Your task to perform on an android device: Open the phone app and click the voicemail tab. Image 0: 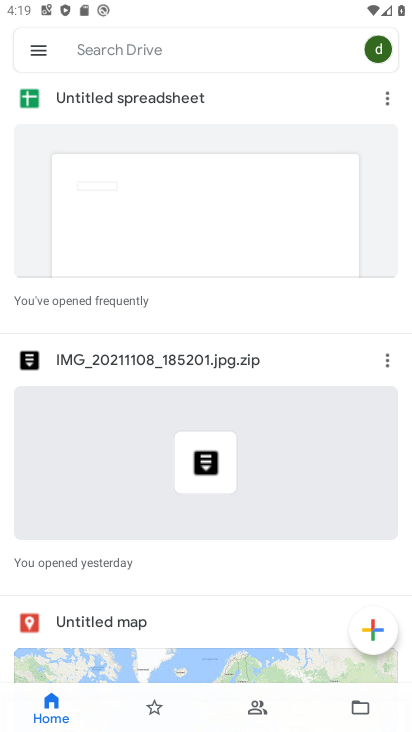
Step 0: press back button
Your task to perform on an android device: Open the phone app and click the voicemail tab. Image 1: 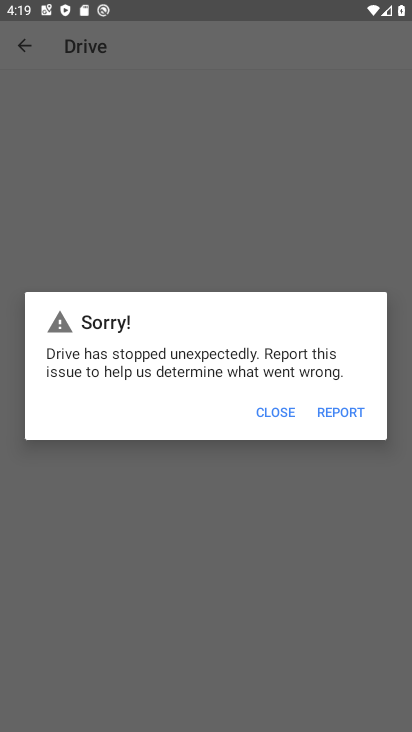
Step 1: press home button
Your task to perform on an android device: Open the phone app and click the voicemail tab. Image 2: 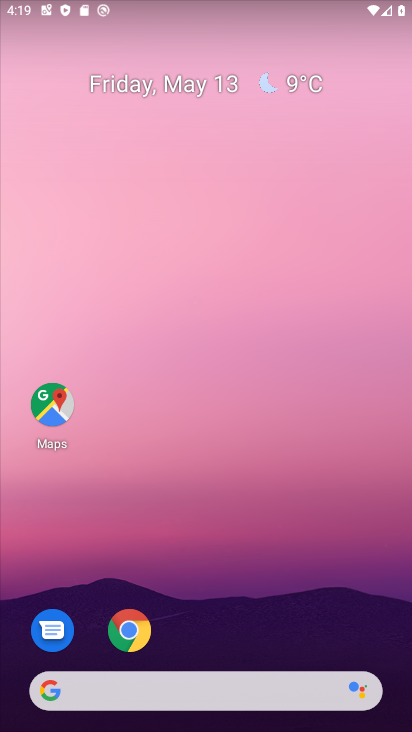
Step 2: drag from (270, 513) to (250, 48)
Your task to perform on an android device: Open the phone app and click the voicemail tab. Image 3: 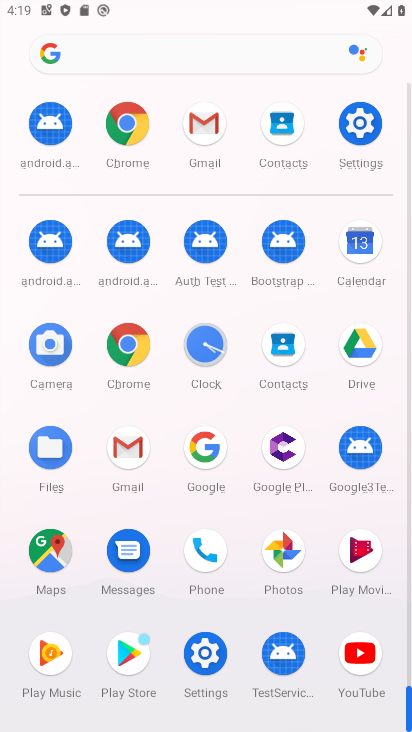
Step 3: drag from (13, 548) to (1, 208)
Your task to perform on an android device: Open the phone app and click the voicemail tab. Image 4: 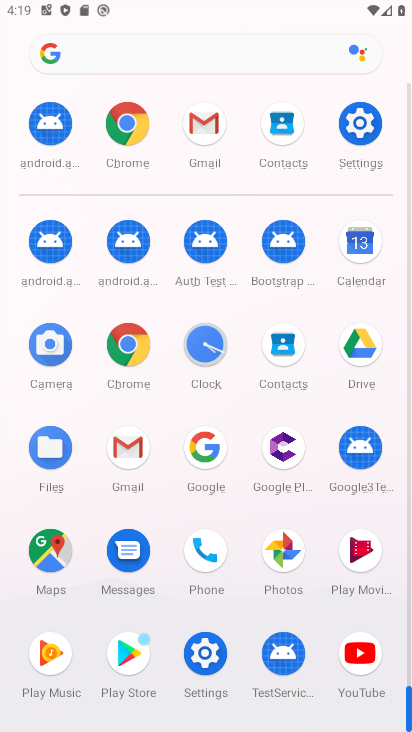
Step 4: click (202, 547)
Your task to perform on an android device: Open the phone app and click the voicemail tab. Image 5: 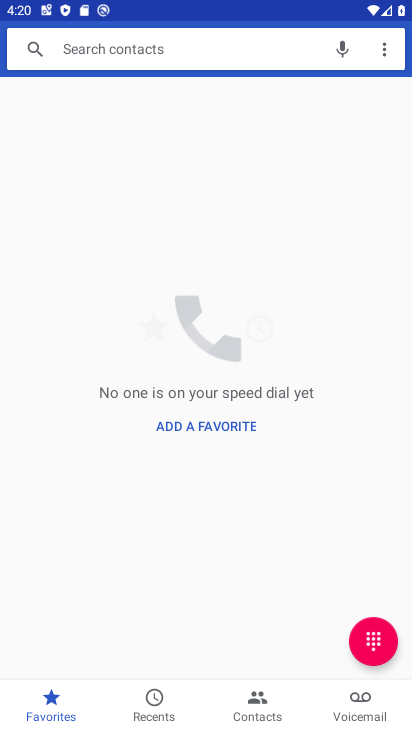
Step 5: click (360, 709)
Your task to perform on an android device: Open the phone app and click the voicemail tab. Image 6: 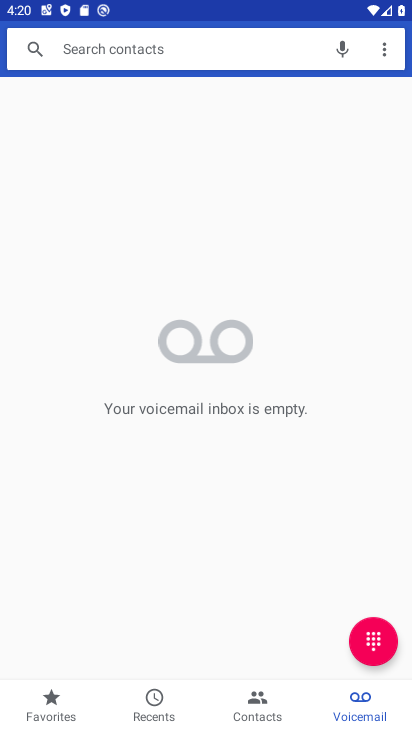
Step 6: task complete